Your task to perform on an android device: open device folders in google photos Image 0: 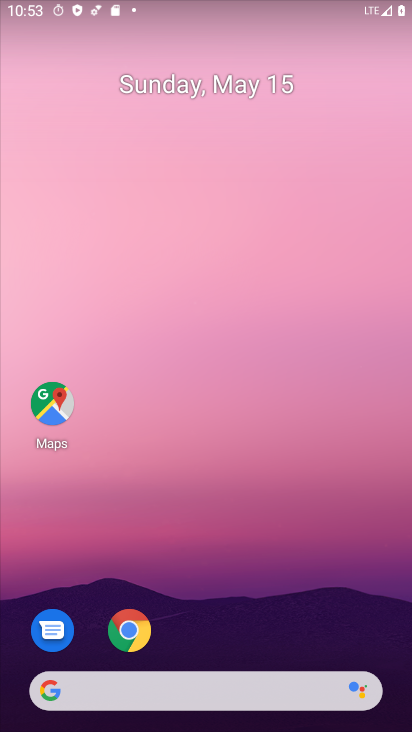
Step 0: drag from (228, 650) to (233, 78)
Your task to perform on an android device: open device folders in google photos Image 1: 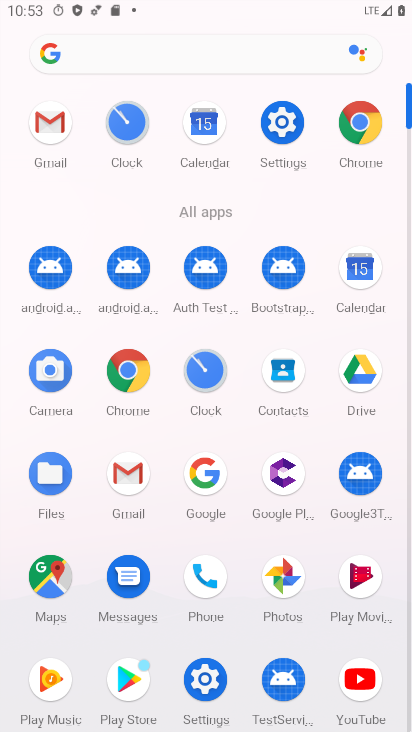
Step 1: click (272, 574)
Your task to perform on an android device: open device folders in google photos Image 2: 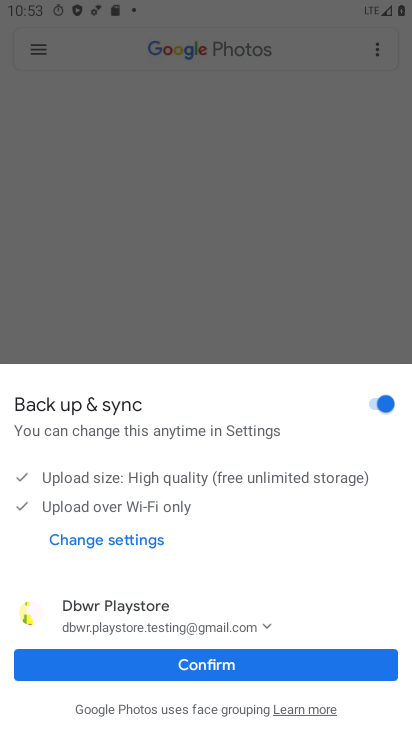
Step 2: click (200, 670)
Your task to perform on an android device: open device folders in google photos Image 3: 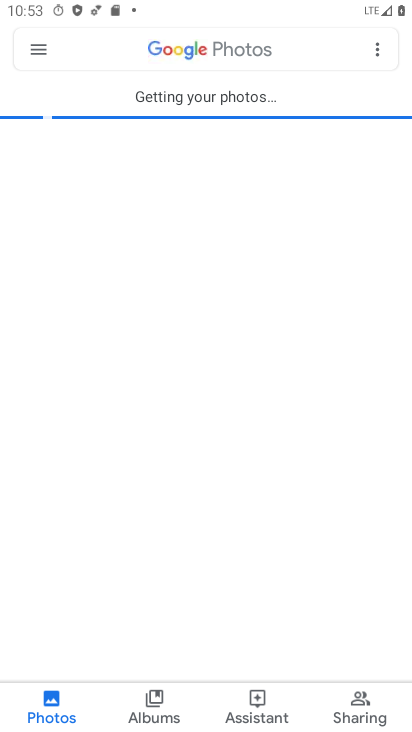
Step 3: click (29, 51)
Your task to perform on an android device: open device folders in google photos Image 4: 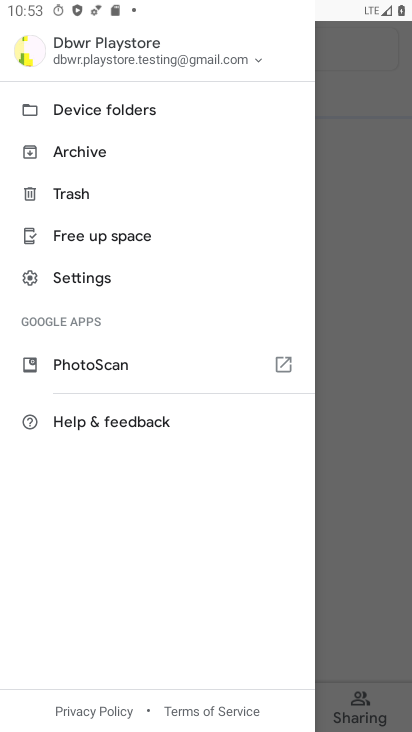
Step 4: click (91, 149)
Your task to perform on an android device: open device folders in google photos Image 5: 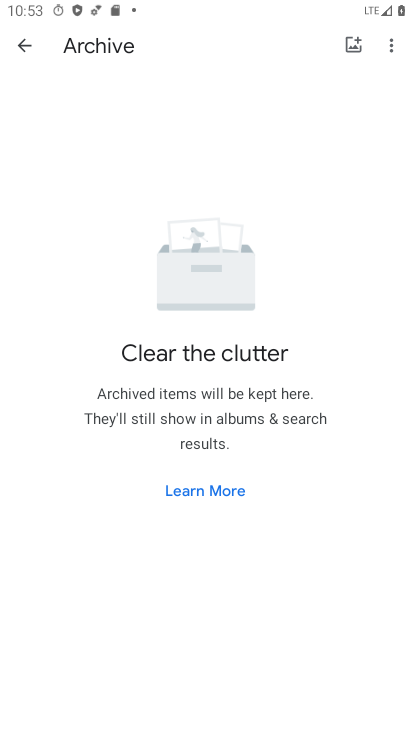
Step 5: click (29, 44)
Your task to perform on an android device: open device folders in google photos Image 6: 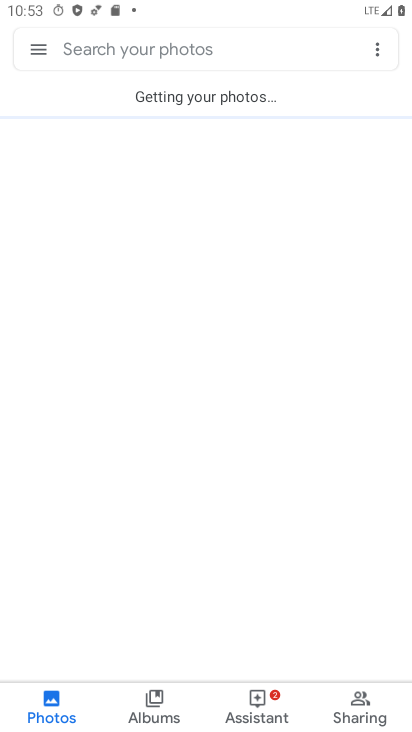
Step 6: click (37, 49)
Your task to perform on an android device: open device folders in google photos Image 7: 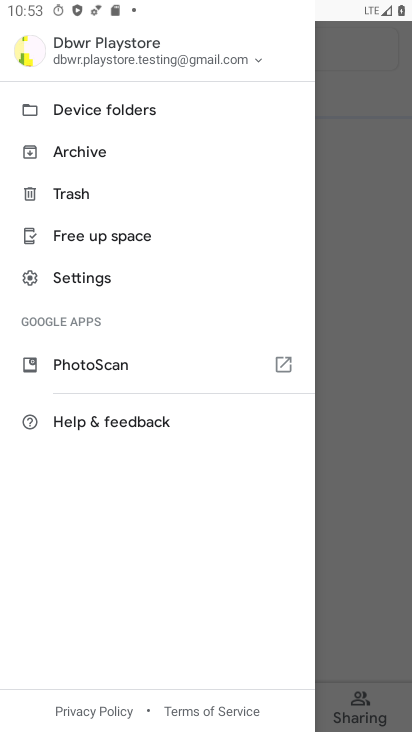
Step 7: click (94, 98)
Your task to perform on an android device: open device folders in google photos Image 8: 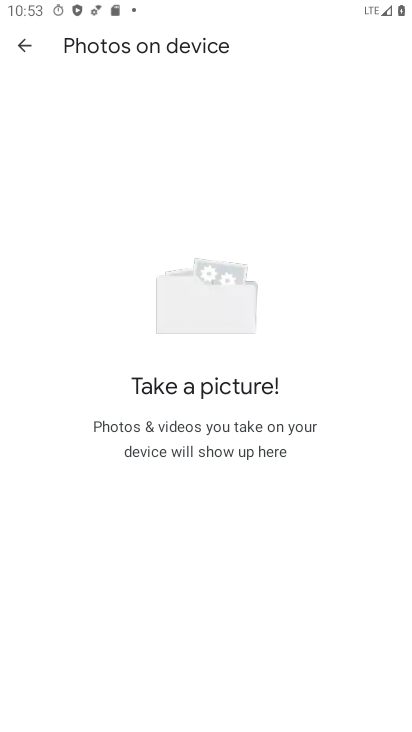
Step 8: task complete